Your task to perform on an android device: turn off location Image 0: 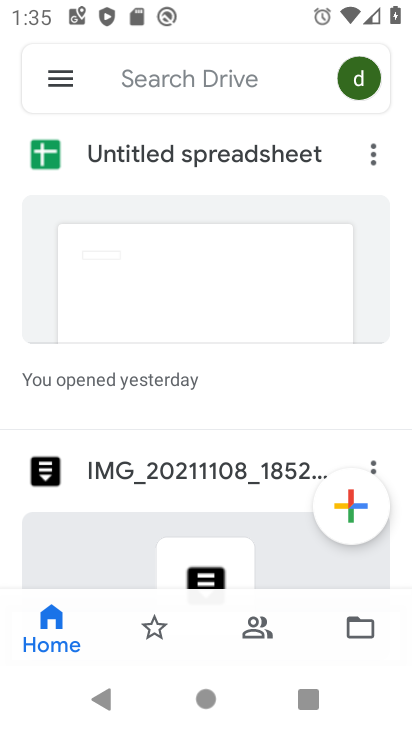
Step 0: press home button
Your task to perform on an android device: turn off location Image 1: 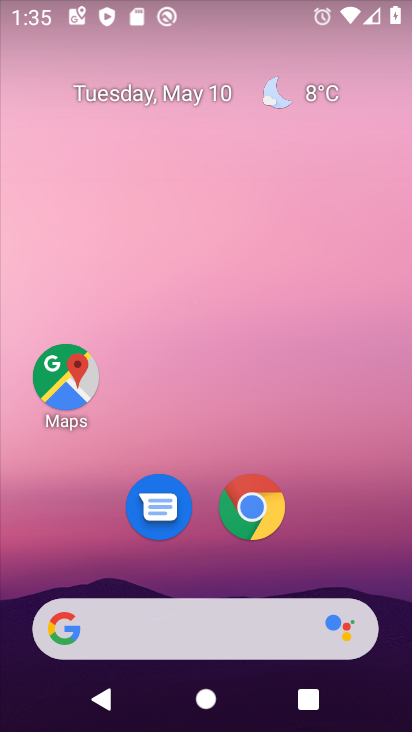
Step 1: drag from (228, 715) to (228, 225)
Your task to perform on an android device: turn off location Image 2: 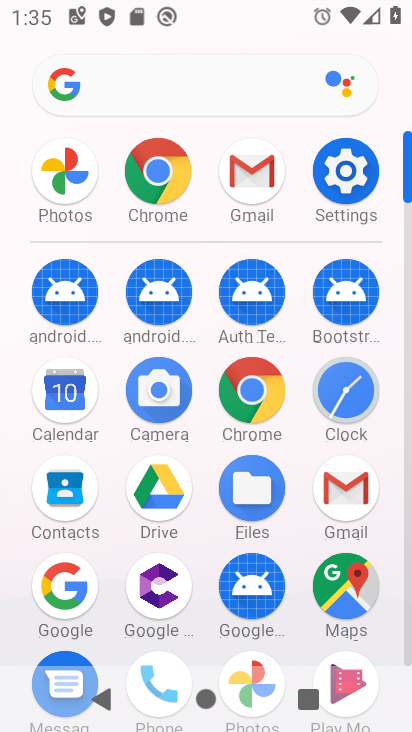
Step 2: click (333, 167)
Your task to perform on an android device: turn off location Image 3: 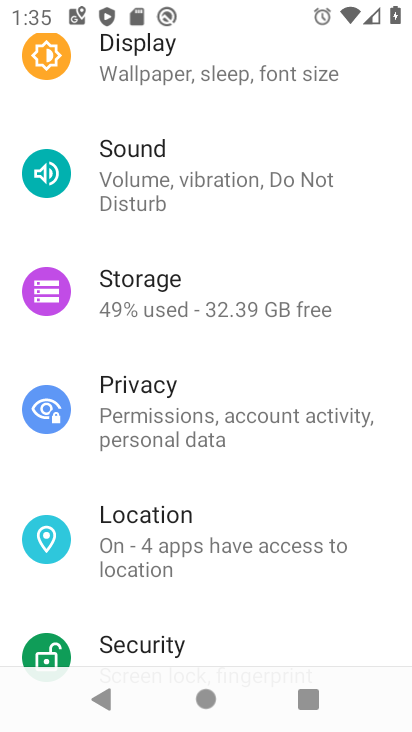
Step 3: click (166, 546)
Your task to perform on an android device: turn off location Image 4: 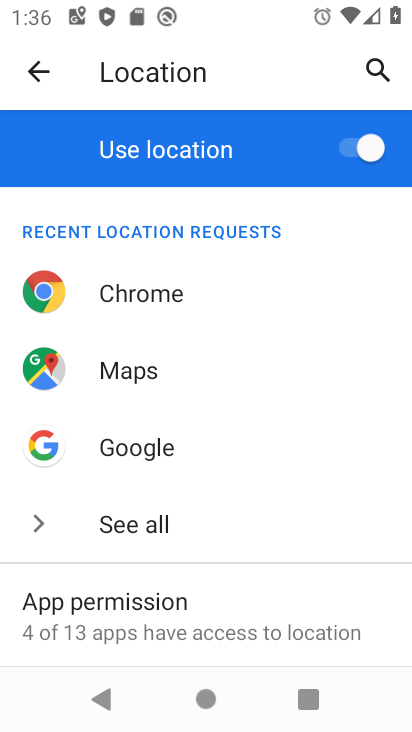
Step 4: click (358, 153)
Your task to perform on an android device: turn off location Image 5: 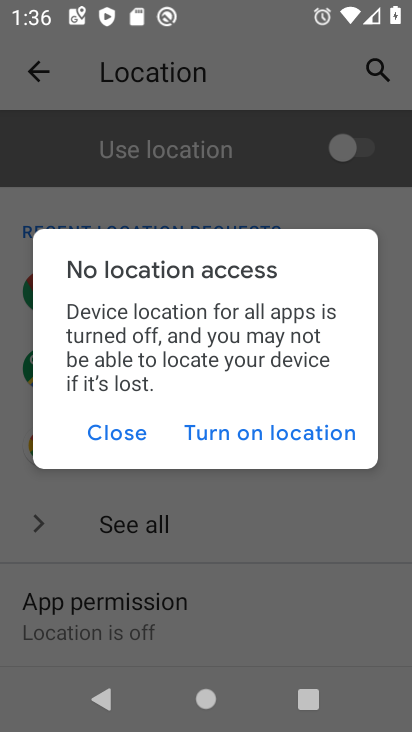
Step 5: click (110, 431)
Your task to perform on an android device: turn off location Image 6: 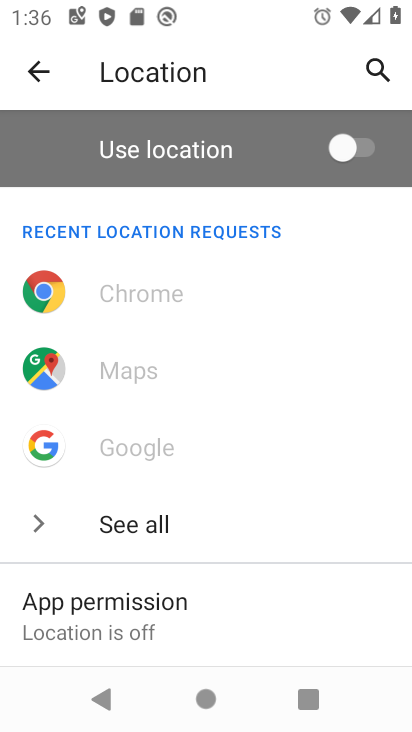
Step 6: task complete